Your task to perform on an android device: turn on javascript in the chrome app Image 0: 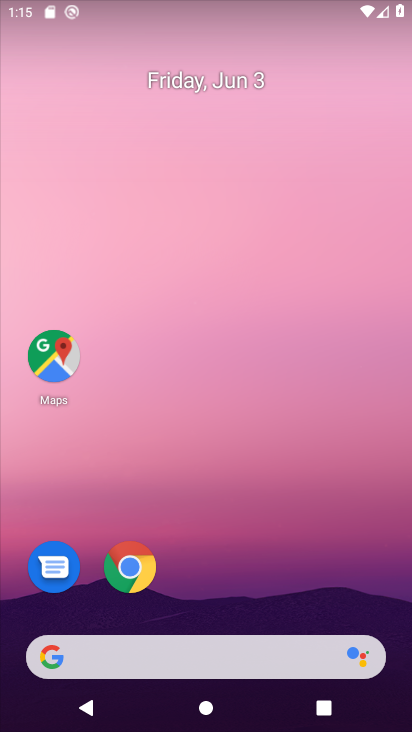
Step 0: click (143, 565)
Your task to perform on an android device: turn on javascript in the chrome app Image 1: 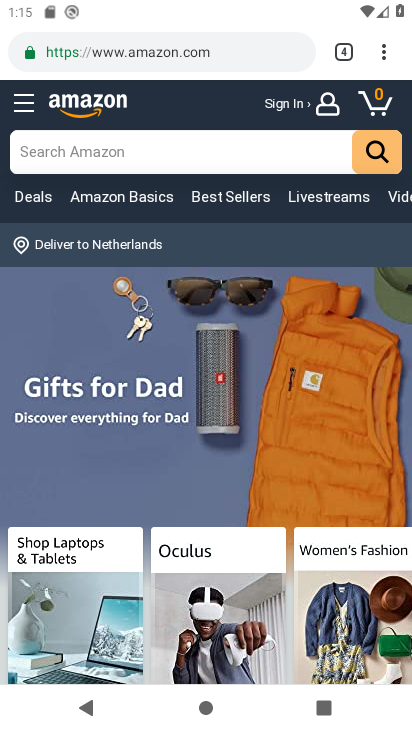
Step 1: click (396, 31)
Your task to perform on an android device: turn on javascript in the chrome app Image 2: 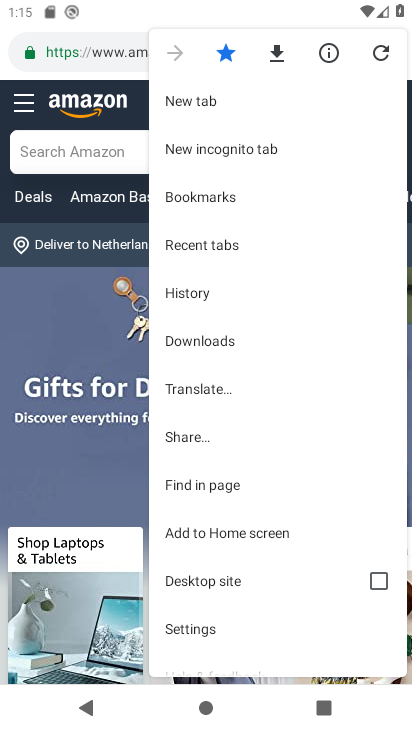
Step 2: drag from (241, 581) to (257, 358)
Your task to perform on an android device: turn on javascript in the chrome app Image 3: 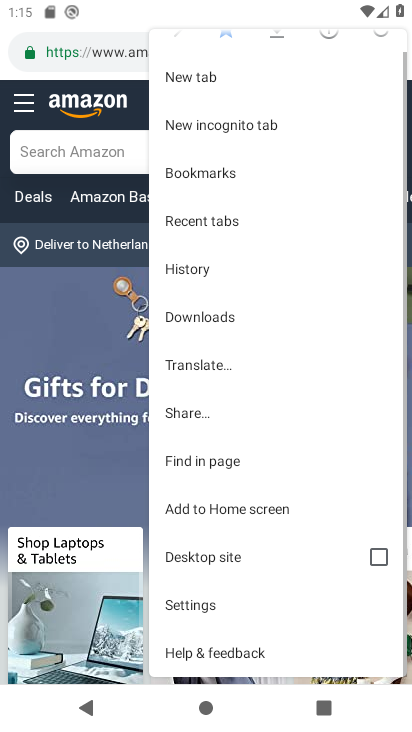
Step 3: click (201, 612)
Your task to perform on an android device: turn on javascript in the chrome app Image 4: 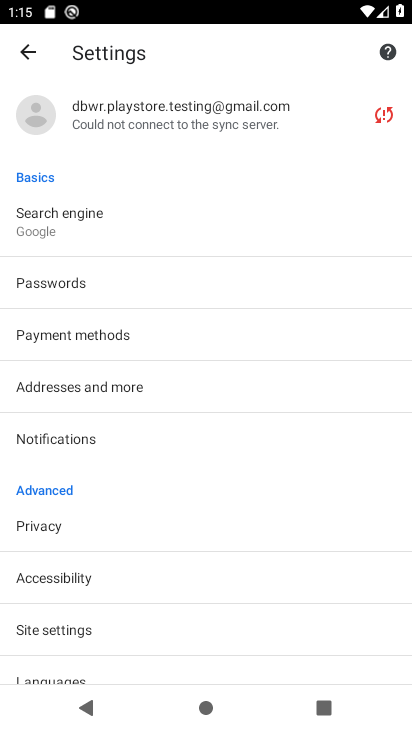
Step 4: drag from (164, 540) to (174, 267)
Your task to perform on an android device: turn on javascript in the chrome app Image 5: 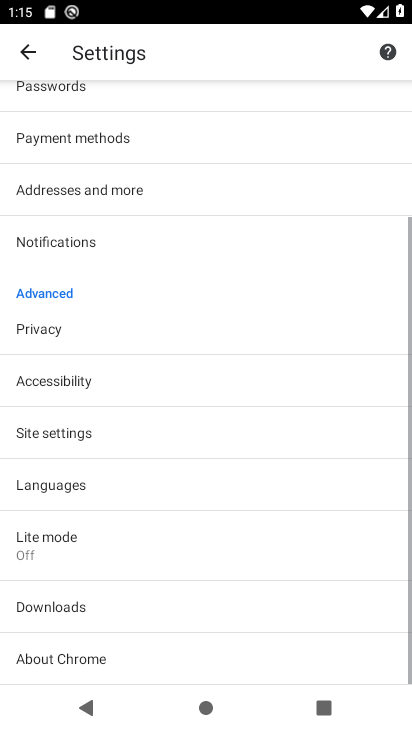
Step 5: click (91, 428)
Your task to perform on an android device: turn on javascript in the chrome app Image 6: 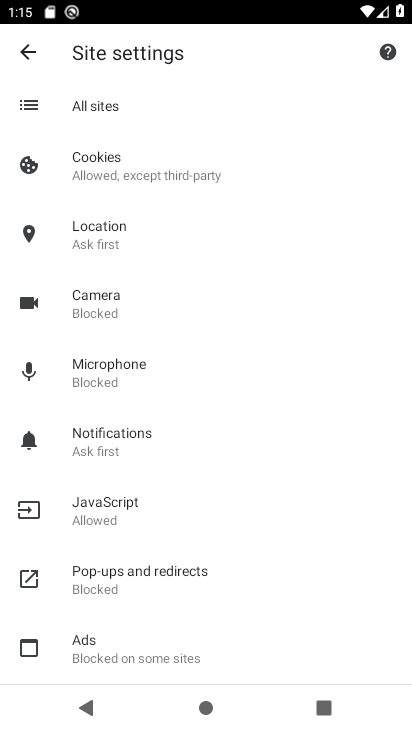
Step 6: click (127, 512)
Your task to perform on an android device: turn on javascript in the chrome app Image 7: 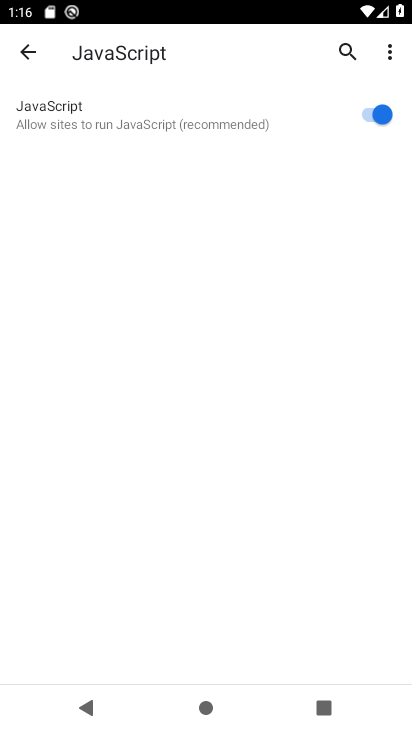
Step 7: task complete